Your task to perform on an android device: Open calendar and show me the third week of next month Image 0: 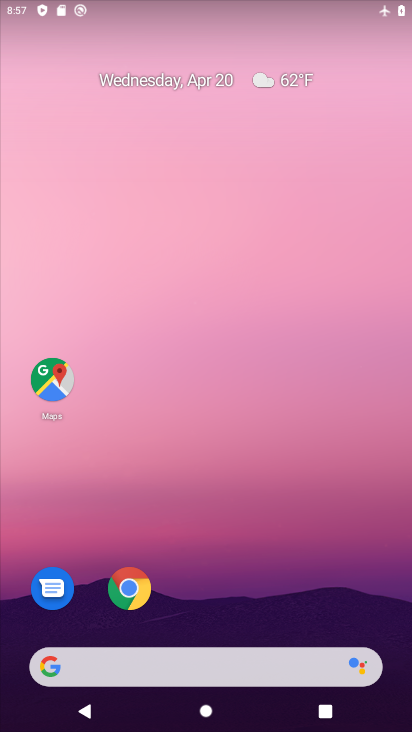
Step 0: drag from (230, 502) to (119, 46)
Your task to perform on an android device: Open calendar and show me the third week of next month Image 1: 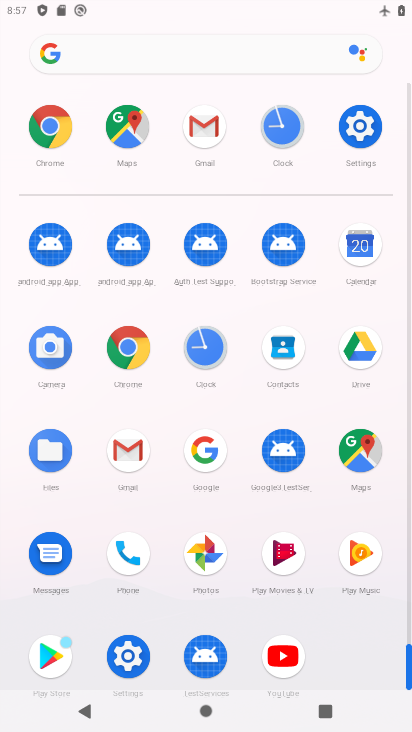
Step 1: drag from (1, 538) to (10, 323)
Your task to perform on an android device: Open calendar and show me the third week of next month Image 2: 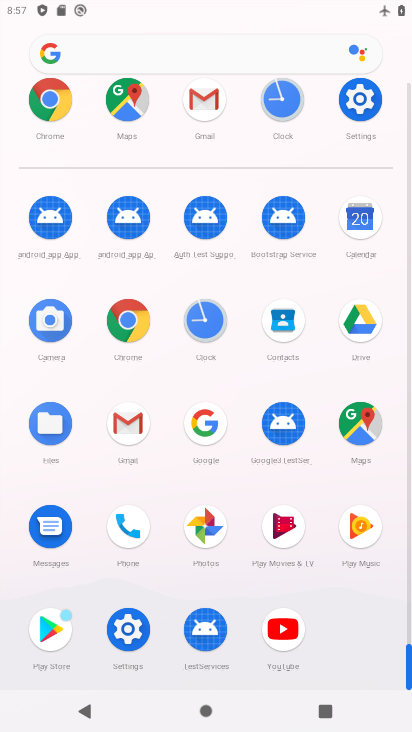
Step 2: click (364, 218)
Your task to perform on an android device: Open calendar and show me the third week of next month Image 3: 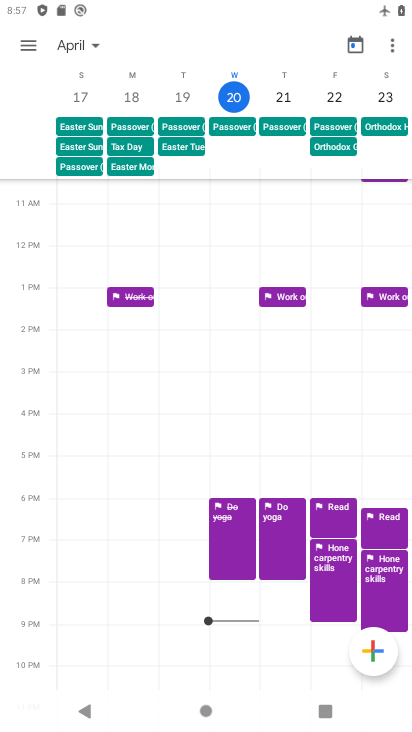
Step 3: click (58, 45)
Your task to perform on an android device: Open calendar and show me the third week of next month Image 4: 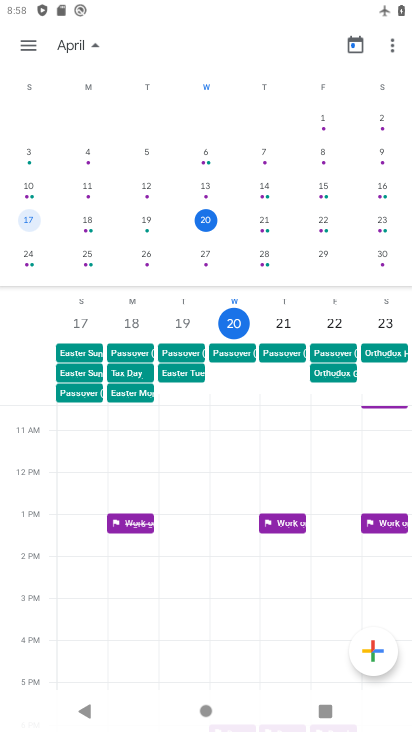
Step 4: drag from (401, 175) to (0, 160)
Your task to perform on an android device: Open calendar and show me the third week of next month Image 5: 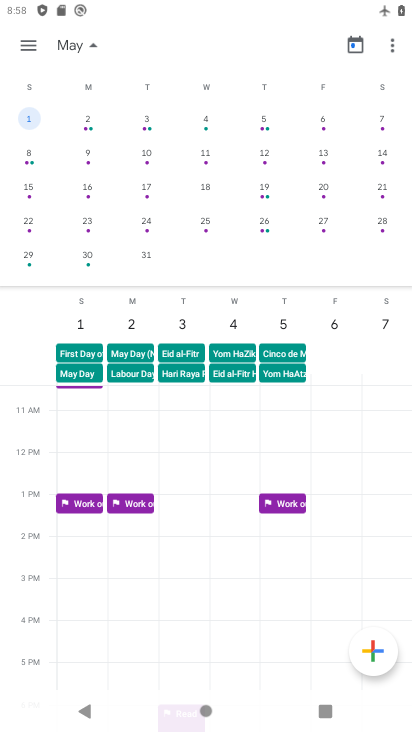
Step 5: click (25, 194)
Your task to perform on an android device: Open calendar and show me the third week of next month Image 6: 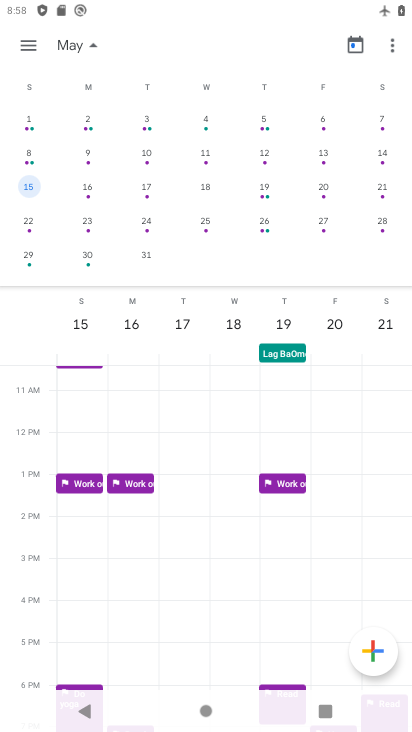
Step 6: click (21, 43)
Your task to perform on an android device: Open calendar and show me the third week of next month Image 7: 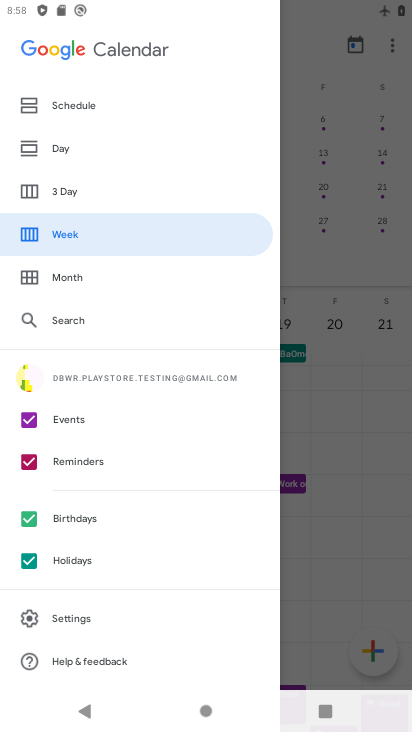
Step 7: click (77, 239)
Your task to perform on an android device: Open calendar and show me the third week of next month Image 8: 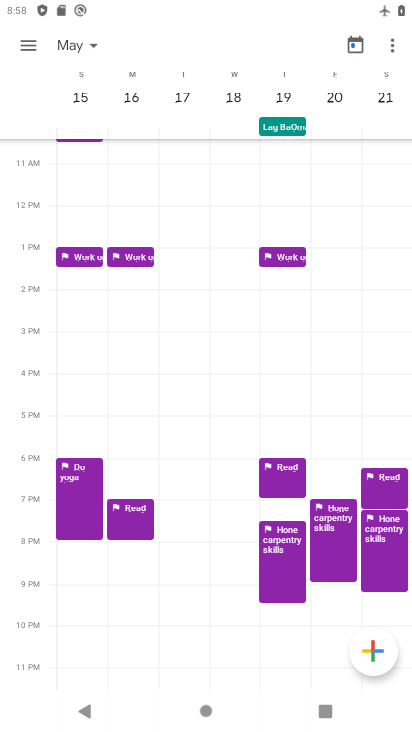
Step 8: task complete